Your task to perform on an android device: open app "Firefox Browser" Image 0: 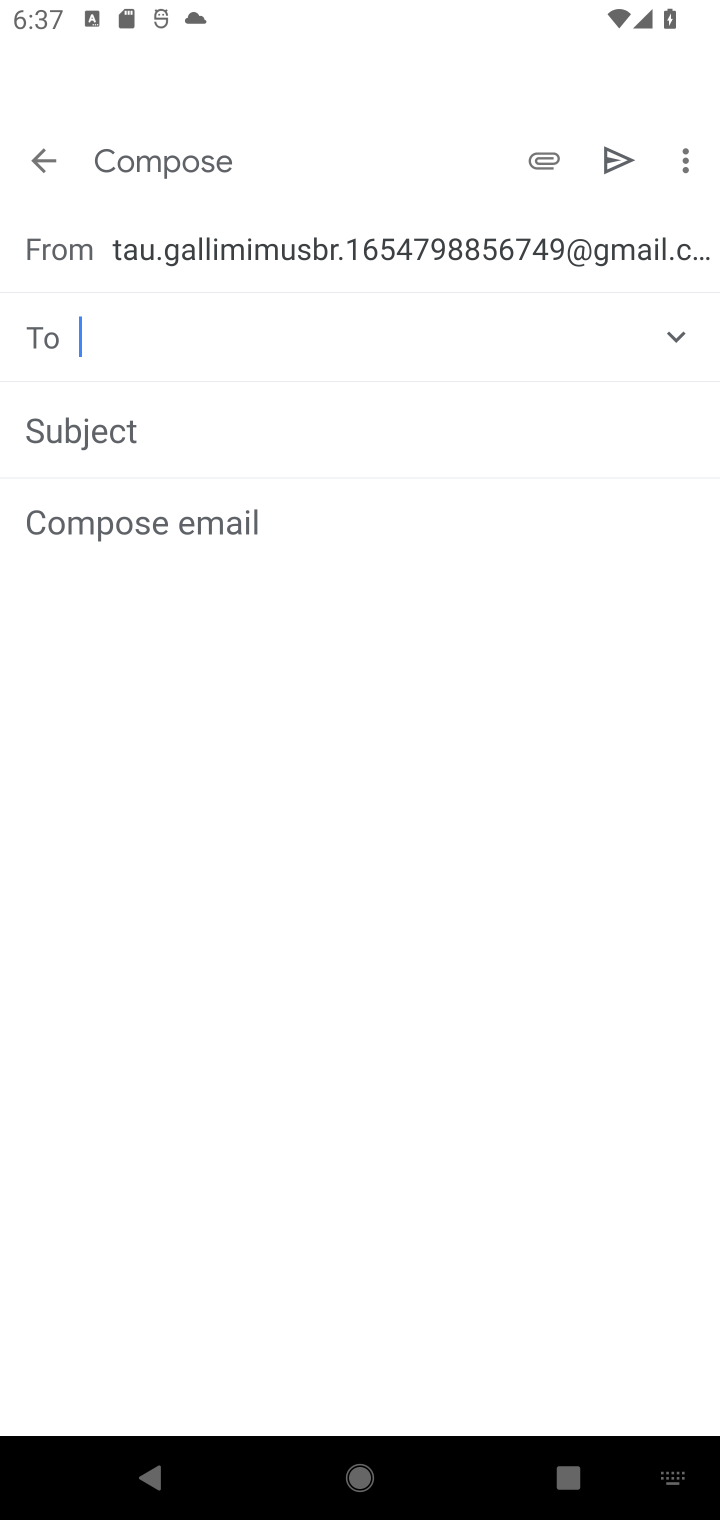
Step 0: press home button
Your task to perform on an android device: open app "Firefox Browser" Image 1: 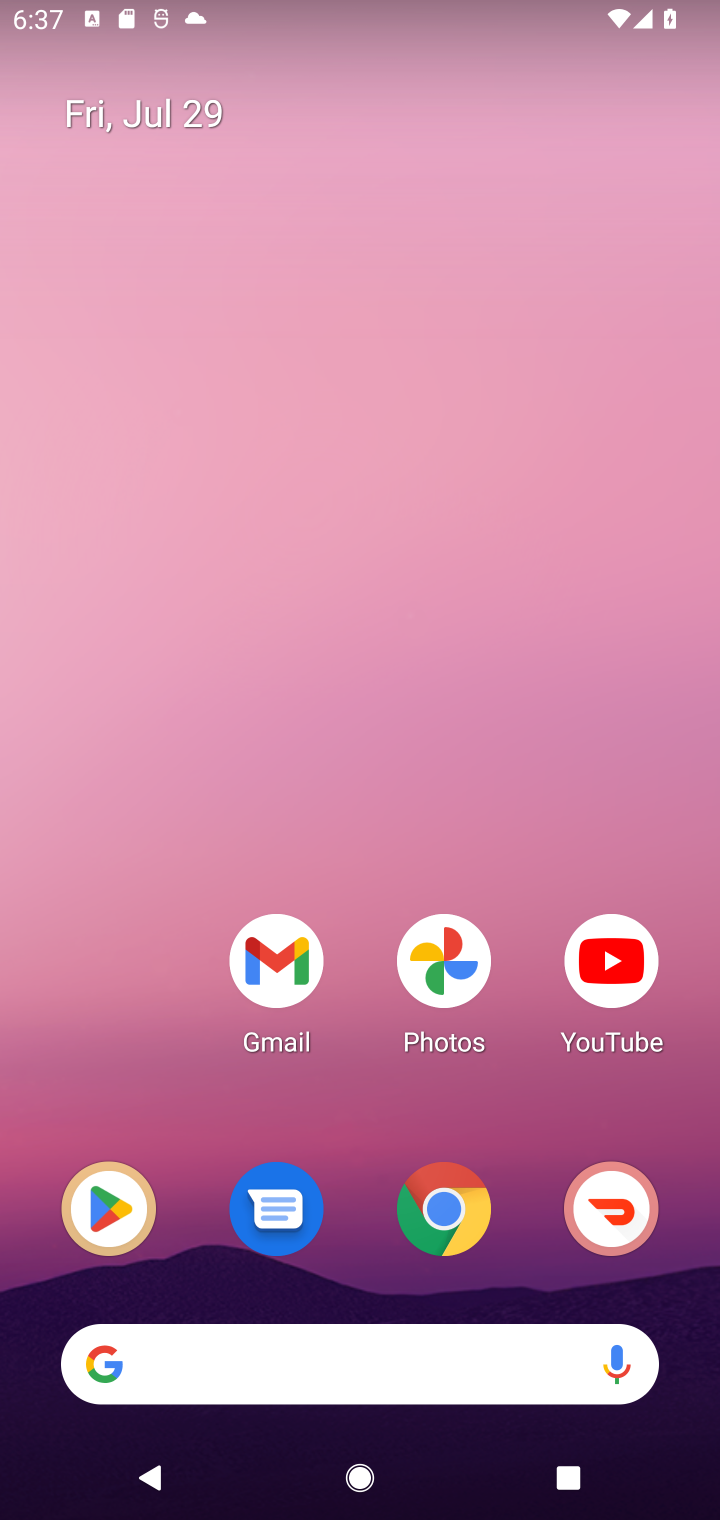
Step 1: click (117, 1206)
Your task to perform on an android device: open app "Firefox Browser" Image 2: 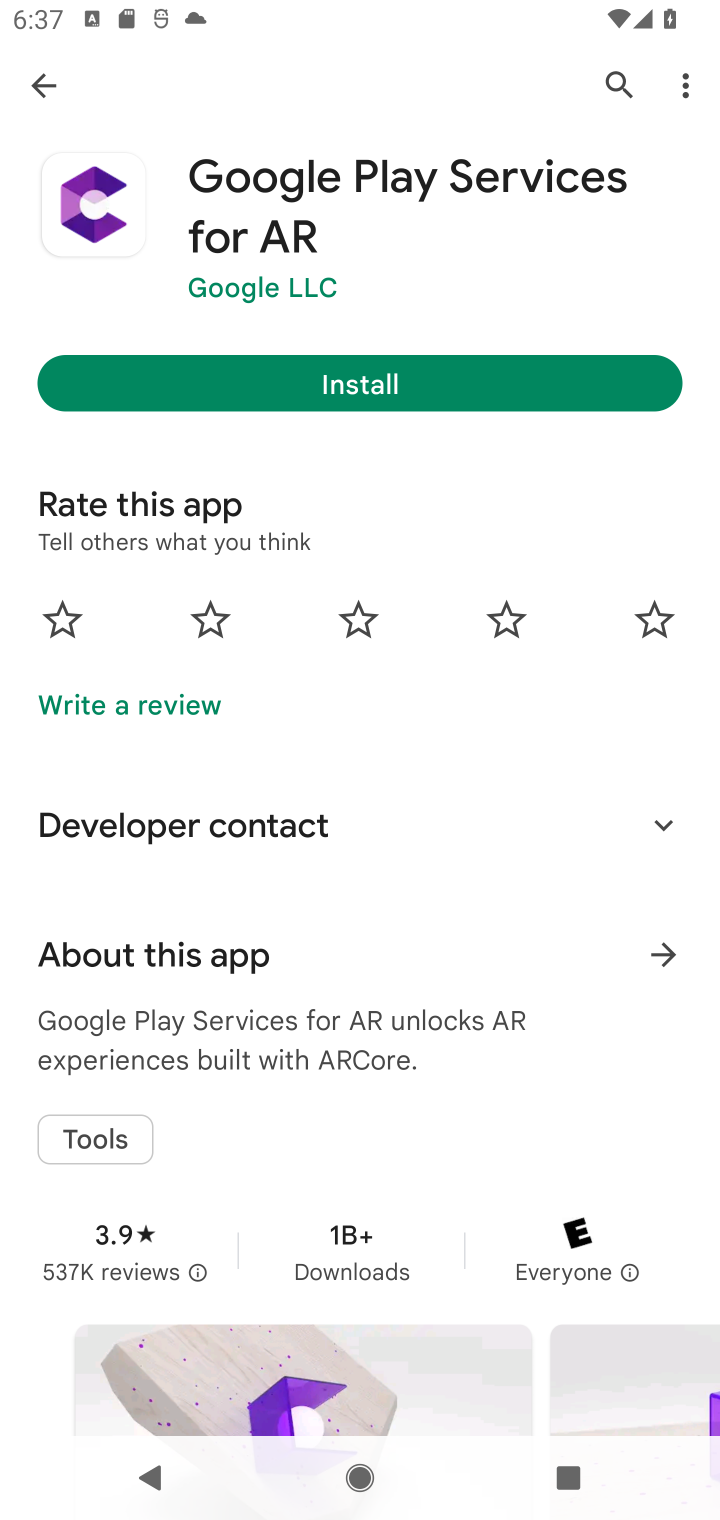
Step 2: click (621, 71)
Your task to perform on an android device: open app "Firefox Browser" Image 3: 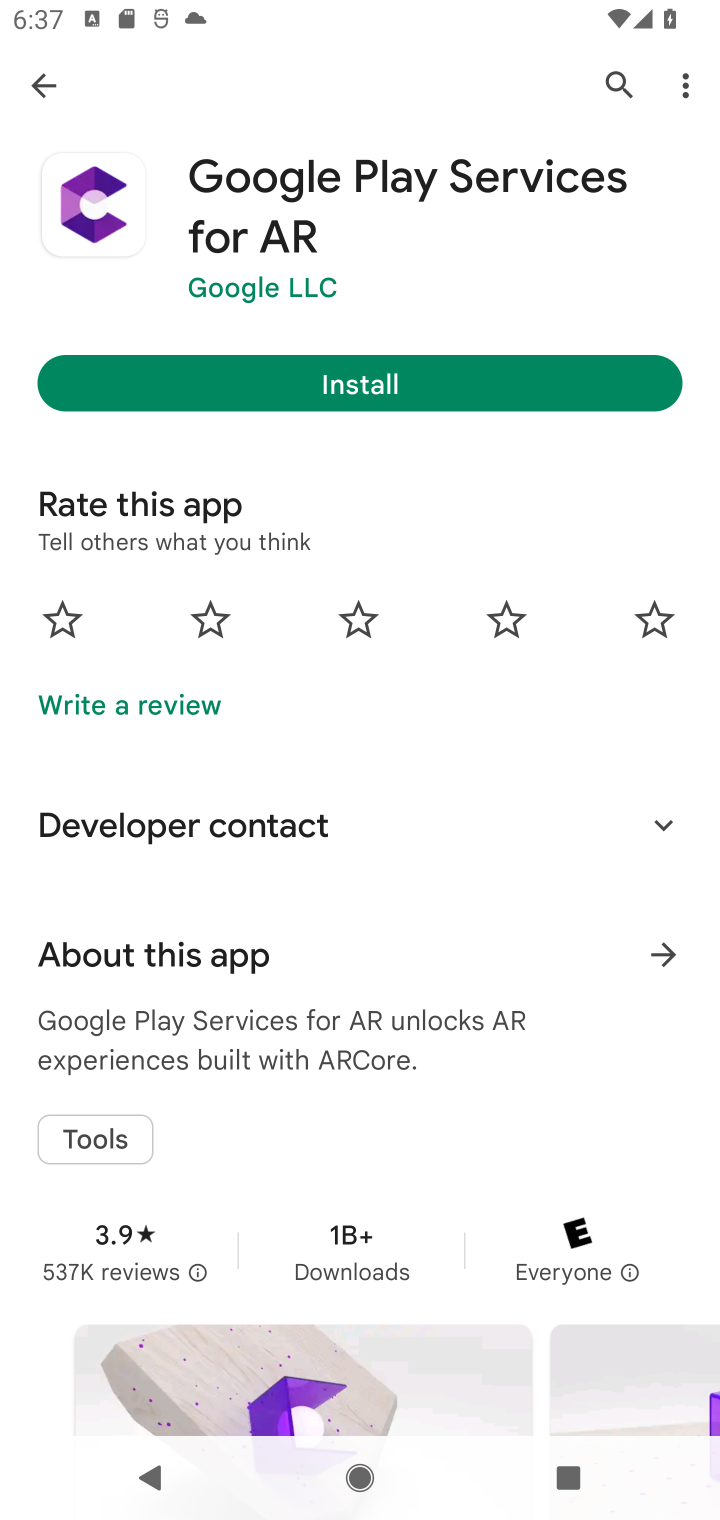
Step 3: click (619, 73)
Your task to perform on an android device: open app "Firefox Browser" Image 4: 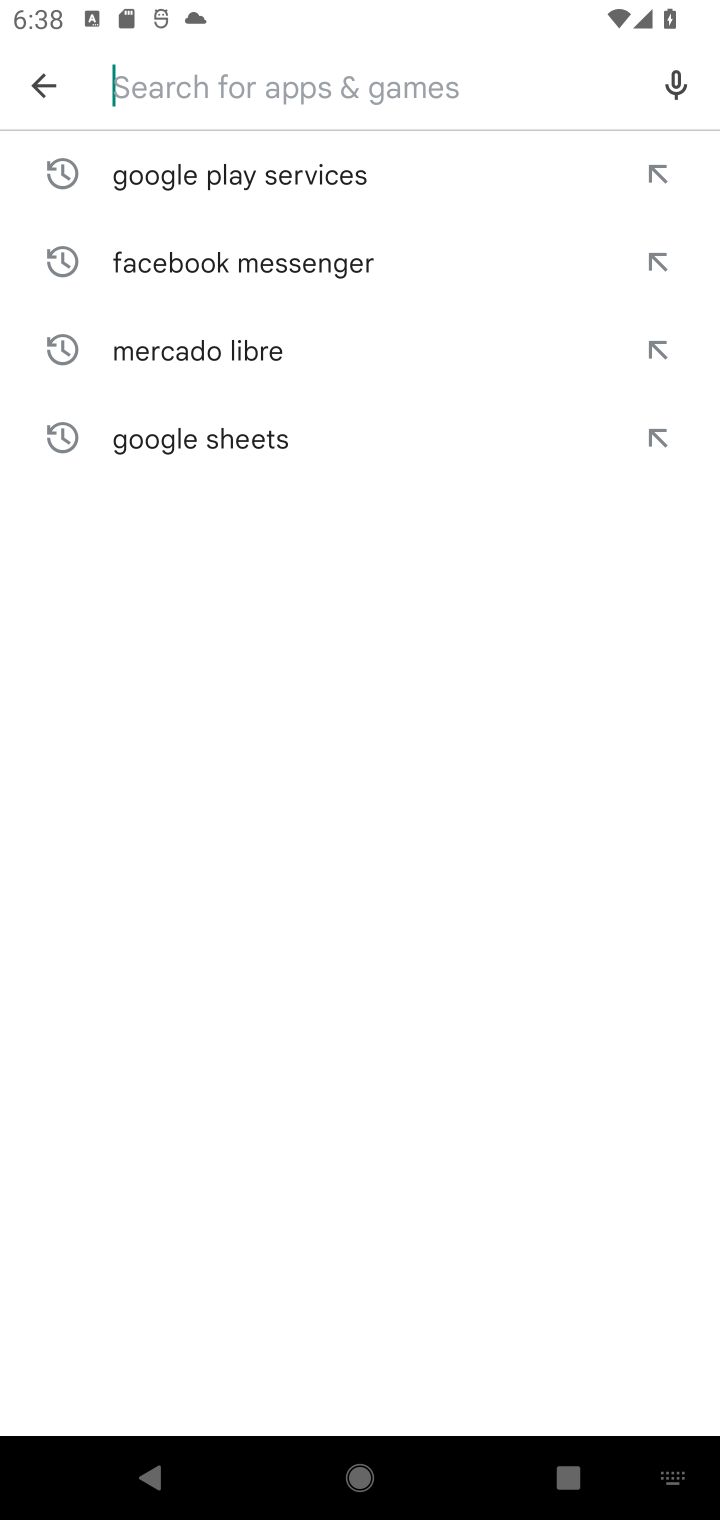
Step 4: type "Firefox Browser"
Your task to perform on an android device: open app "Firefox Browser" Image 5: 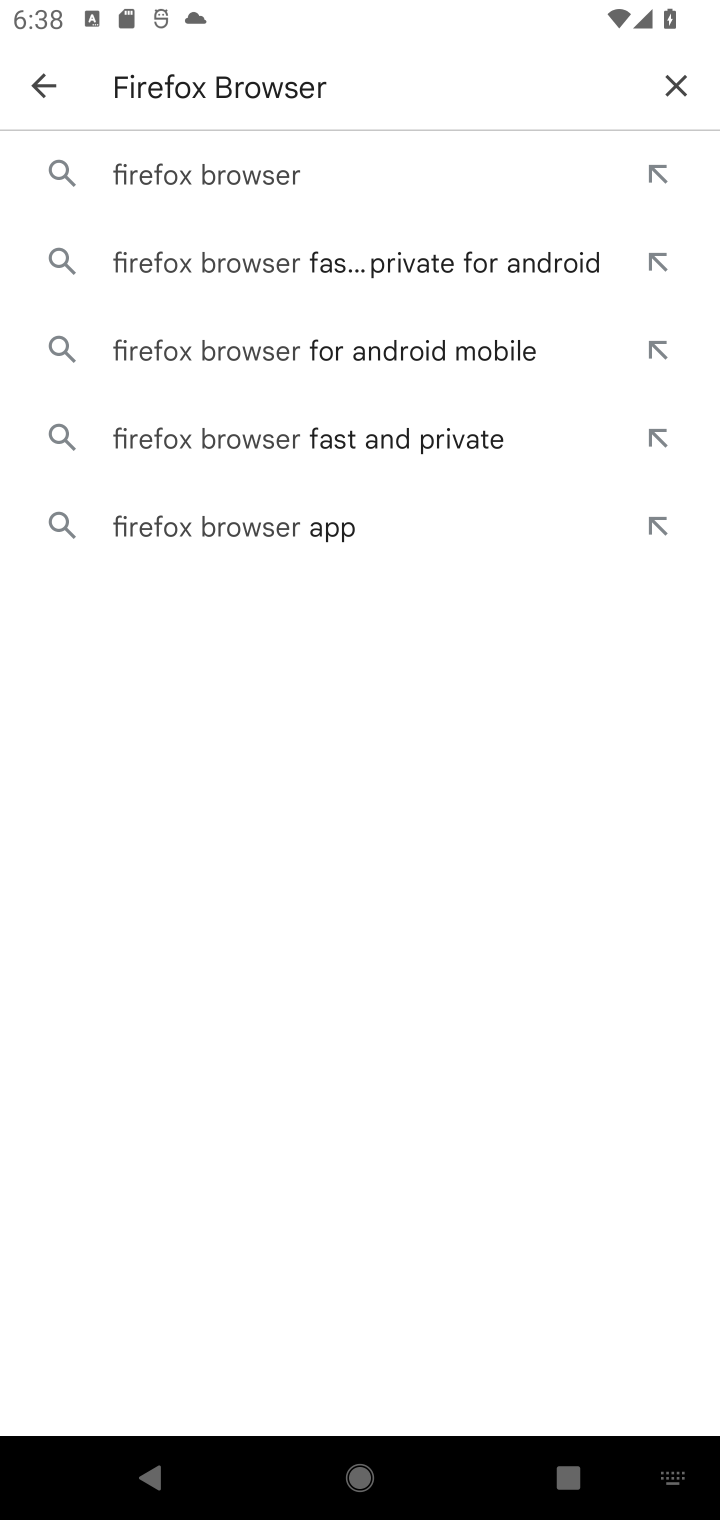
Step 5: click (179, 183)
Your task to perform on an android device: open app "Firefox Browser" Image 6: 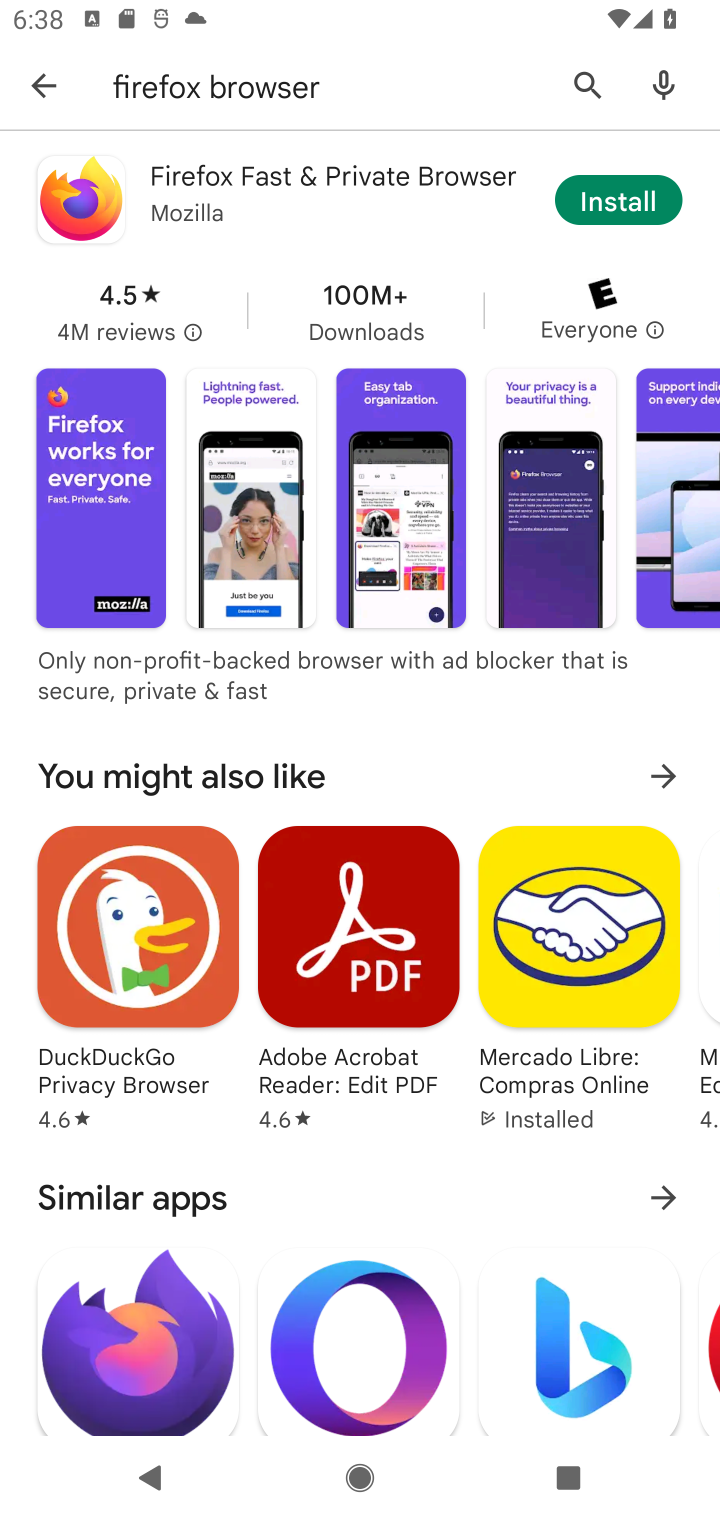
Step 6: task complete